Your task to perform on an android device: See recent photos Image 0: 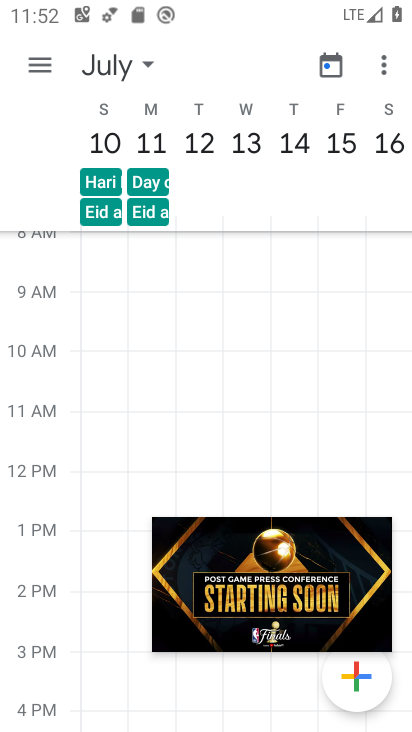
Step 0: drag from (352, 502) to (240, 729)
Your task to perform on an android device: See recent photos Image 1: 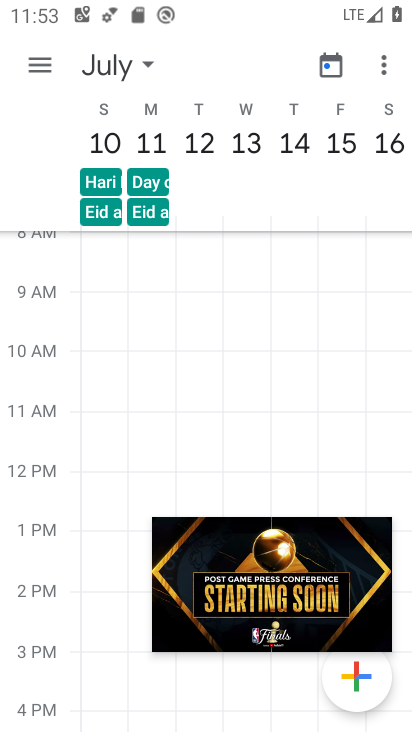
Step 1: drag from (299, 545) to (410, 478)
Your task to perform on an android device: See recent photos Image 2: 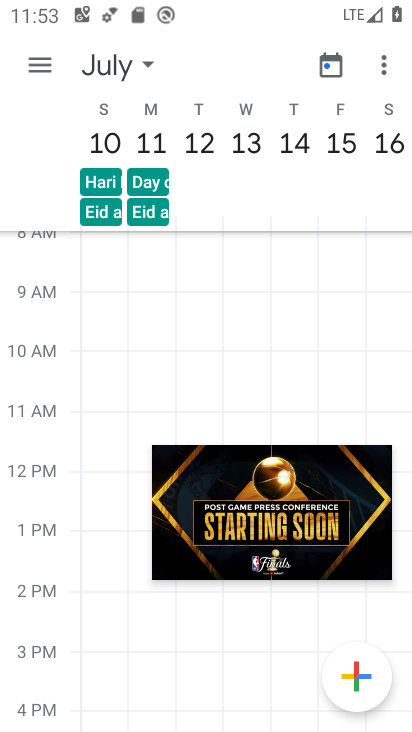
Step 2: drag from (327, 457) to (289, 727)
Your task to perform on an android device: See recent photos Image 3: 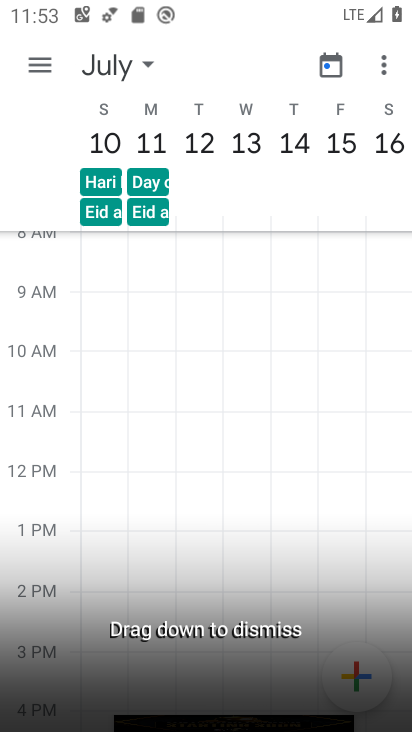
Step 3: press home button
Your task to perform on an android device: See recent photos Image 4: 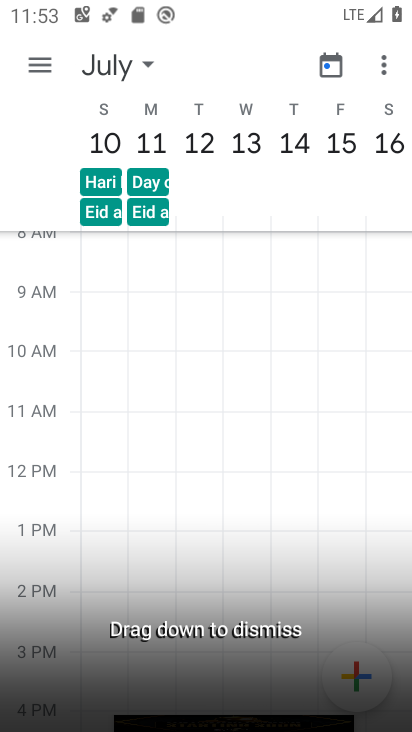
Step 4: press home button
Your task to perform on an android device: See recent photos Image 5: 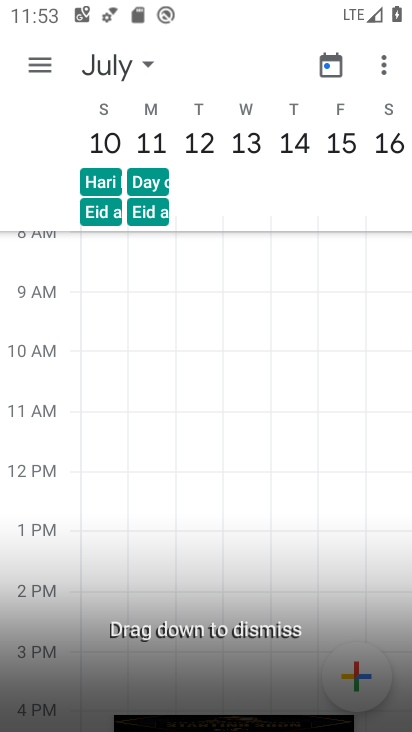
Step 5: drag from (408, 586) to (305, 728)
Your task to perform on an android device: See recent photos Image 6: 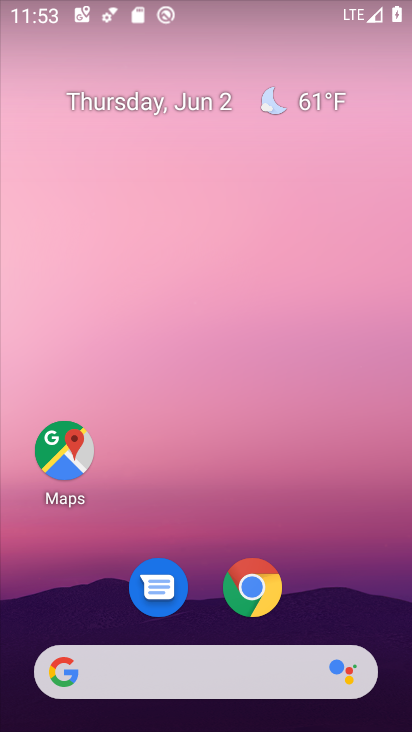
Step 6: drag from (222, 521) to (226, 34)
Your task to perform on an android device: See recent photos Image 7: 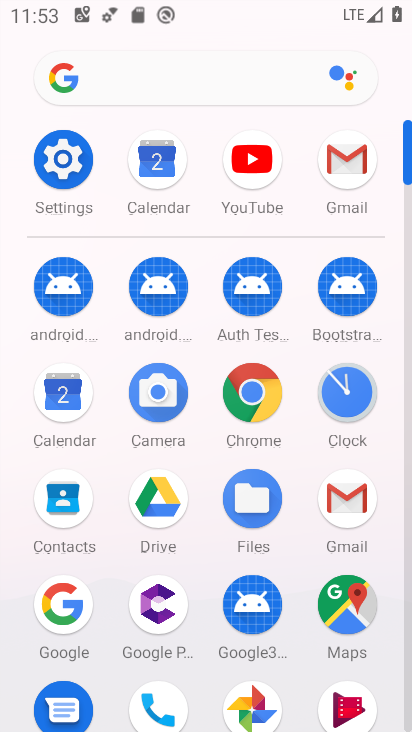
Step 7: click (252, 691)
Your task to perform on an android device: See recent photos Image 8: 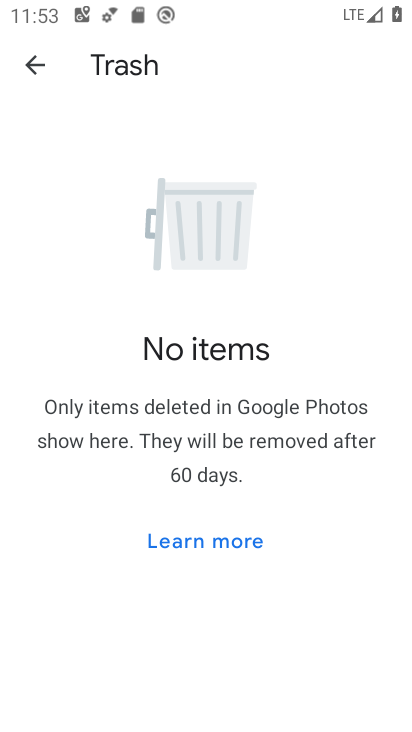
Step 8: click (32, 52)
Your task to perform on an android device: See recent photos Image 9: 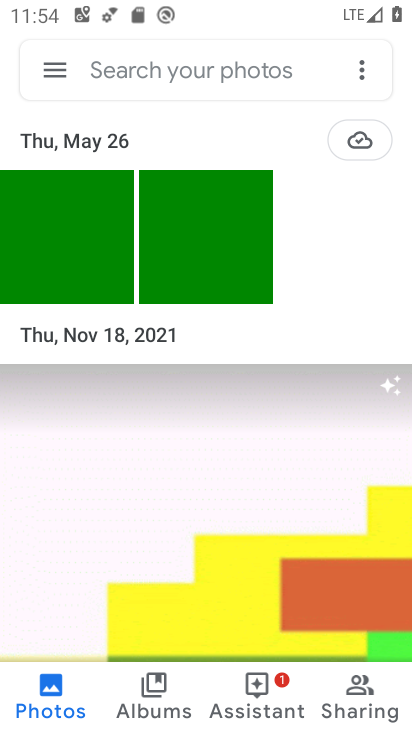
Step 9: task complete